Your task to perform on an android device: find photos in the google photos app Image 0: 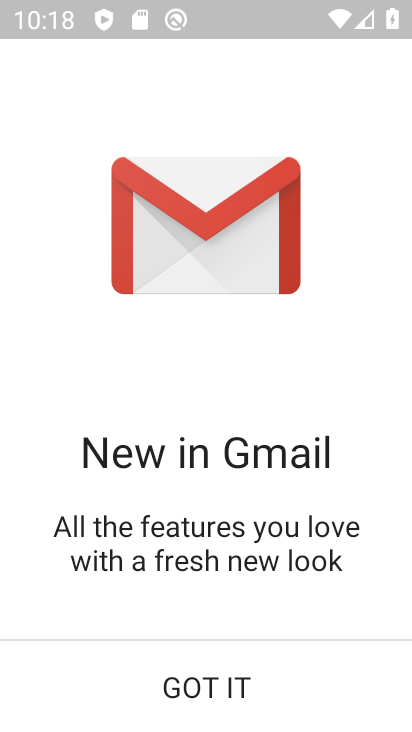
Step 0: press home button
Your task to perform on an android device: find photos in the google photos app Image 1: 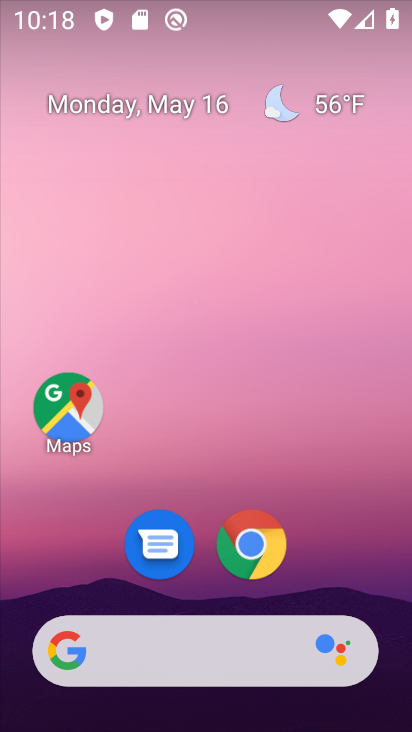
Step 1: drag from (65, 609) to (218, 112)
Your task to perform on an android device: find photos in the google photos app Image 2: 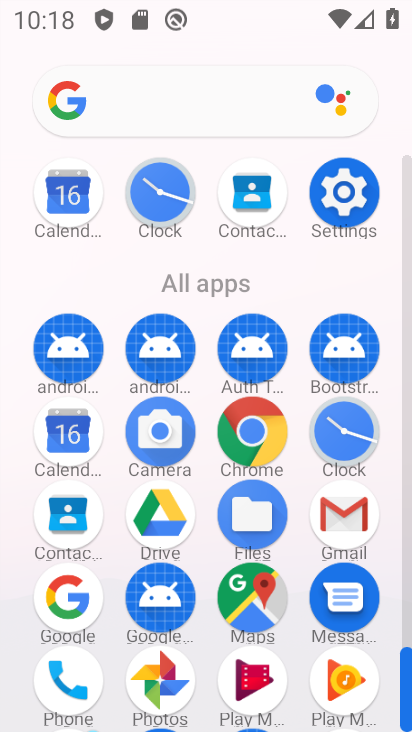
Step 2: click (172, 673)
Your task to perform on an android device: find photos in the google photos app Image 3: 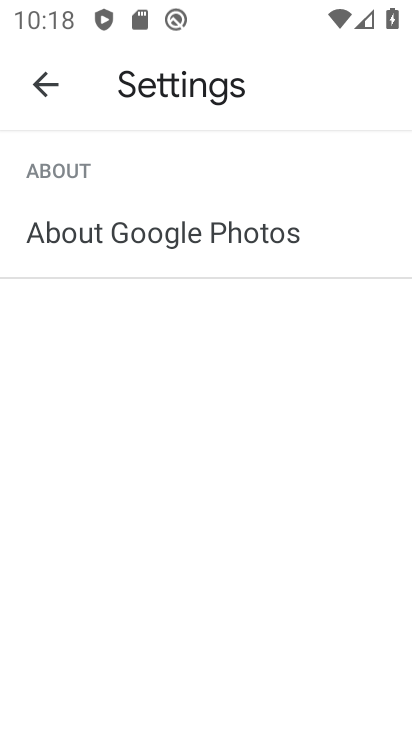
Step 3: press back button
Your task to perform on an android device: find photos in the google photos app Image 4: 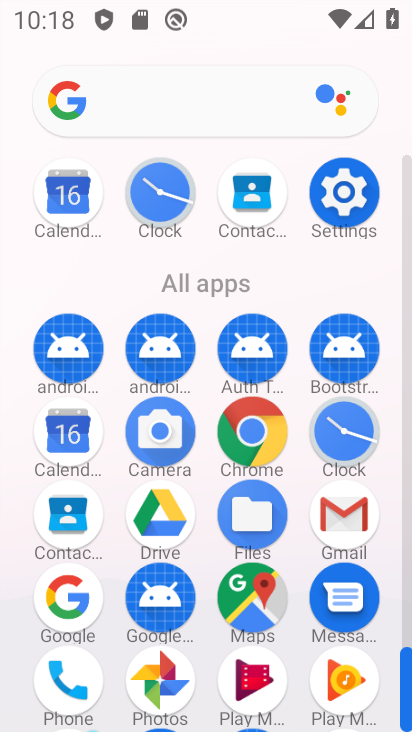
Step 4: click (153, 674)
Your task to perform on an android device: find photos in the google photos app Image 5: 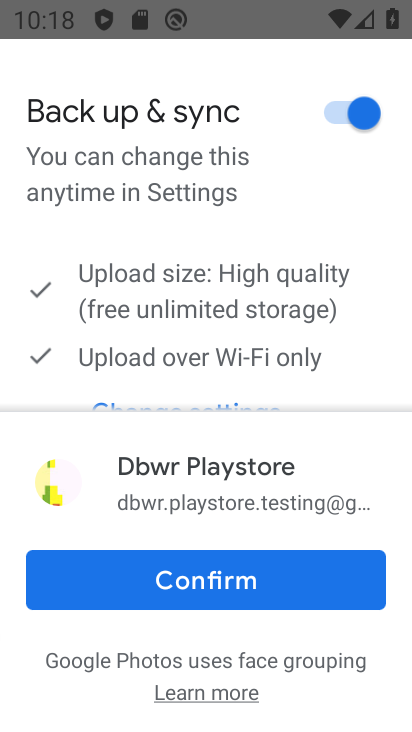
Step 5: click (279, 590)
Your task to perform on an android device: find photos in the google photos app Image 6: 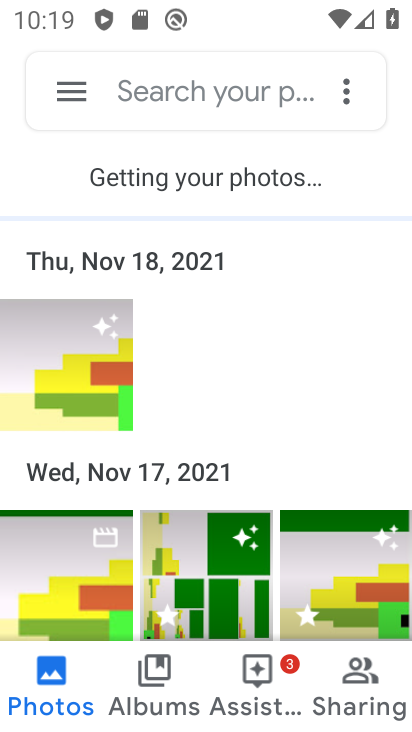
Step 6: task complete